Your task to perform on an android device: Open network settings Image 0: 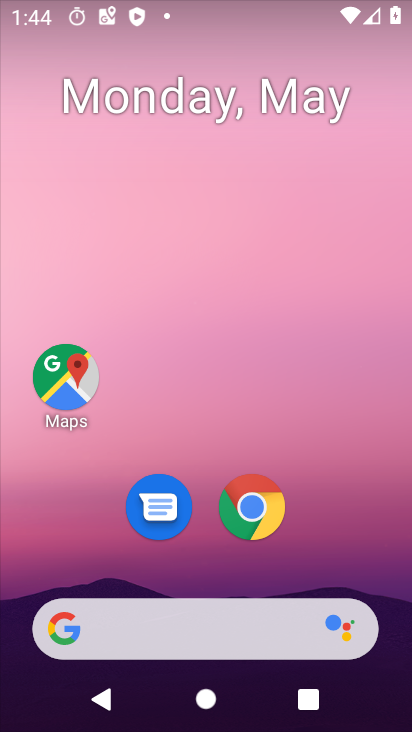
Step 0: drag from (390, 532) to (329, 89)
Your task to perform on an android device: Open network settings Image 1: 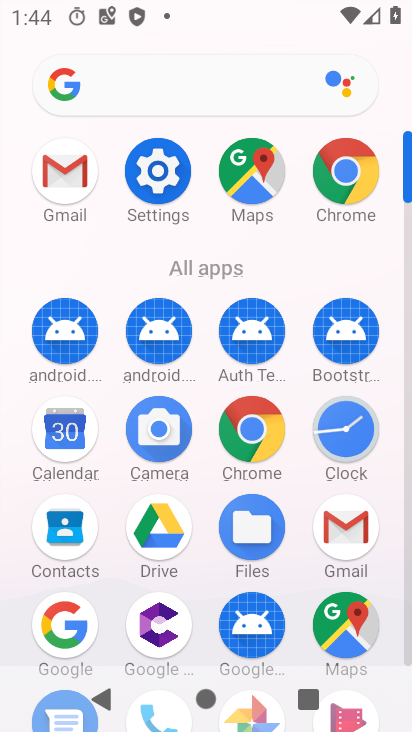
Step 1: click (165, 193)
Your task to perform on an android device: Open network settings Image 2: 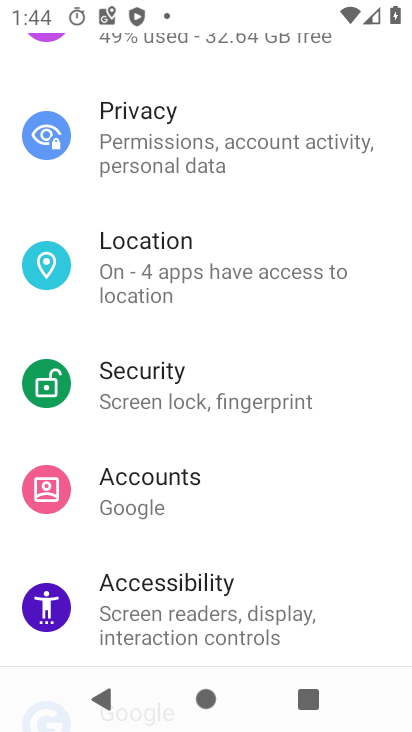
Step 2: drag from (211, 202) to (212, 560)
Your task to perform on an android device: Open network settings Image 3: 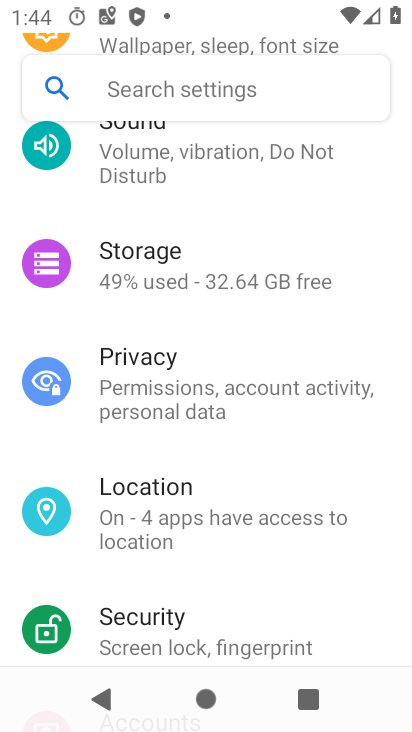
Step 3: drag from (237, 247) to (207, 630)
Your task to perform on an android device: Open network settings Image 4: 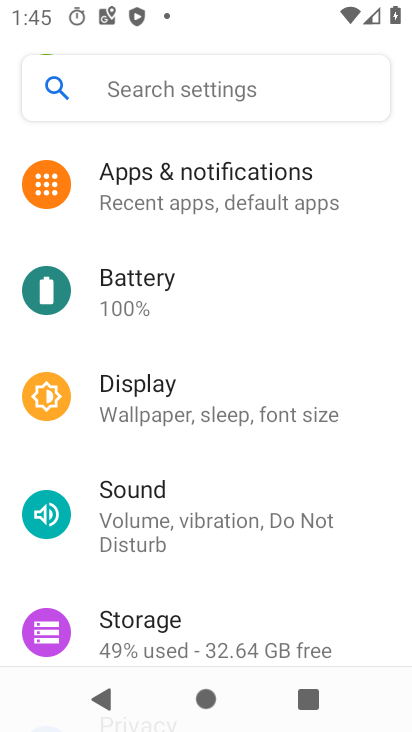
Step 4: drag from (225, 301) to (192, 580)
Your task to perform on an android device: Open network settings Image 5: 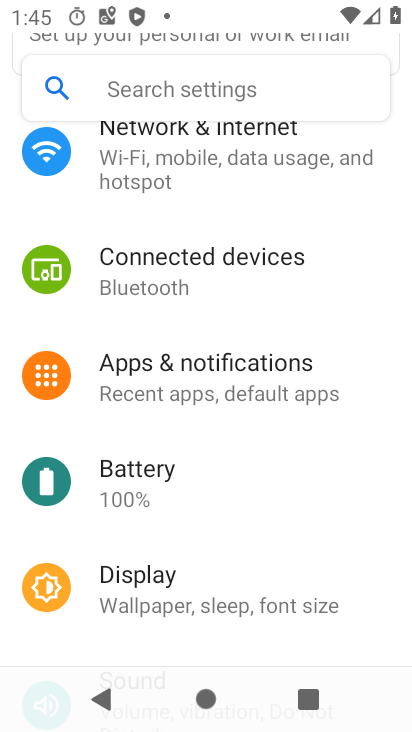
Step 5: drag from (226, 203) to (199, 491)
Your task to perform on an android device: Open network settings Image 6: 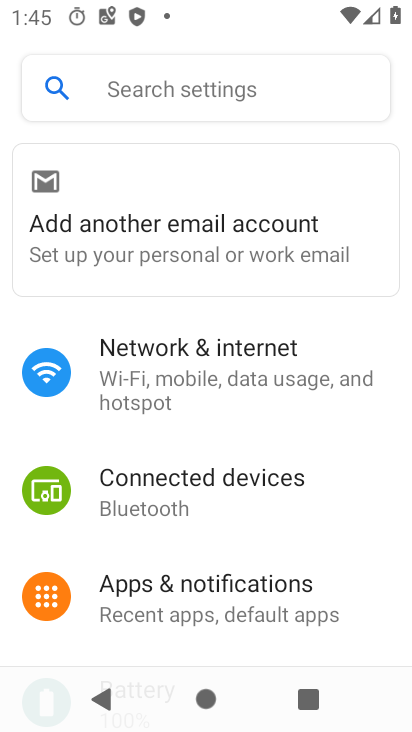
Step 6: click (188, 390)
Your task to perform on an android device: Open network settings Image 7: 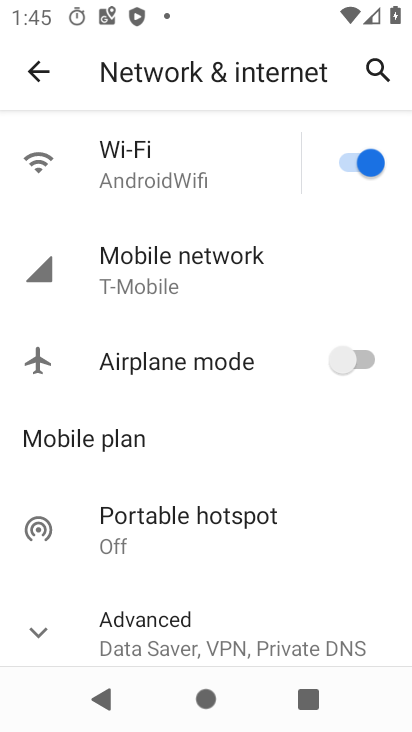
Step 7: click (191, 259)
Your task to perform on an android device: Open network settings Image 8: 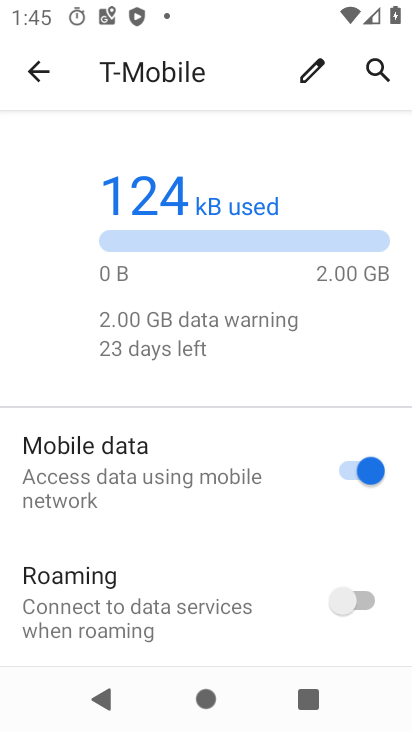
Step 8: task complete